Your task to perform on an android device: Open display settings Image 0: 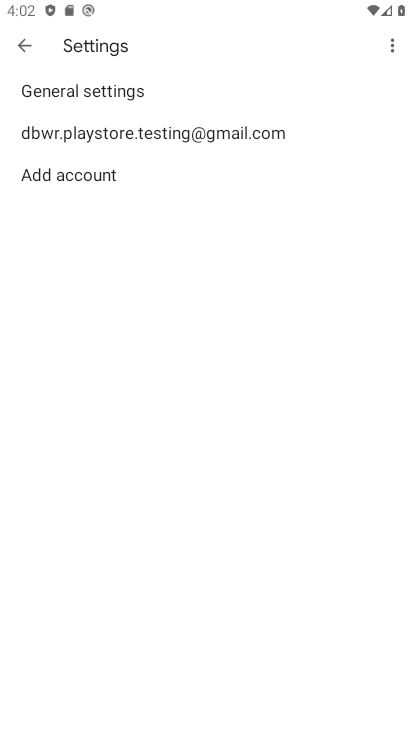
Step 0: click (23, 49)
Your task to perform on an android device: Open display settings Image 1: 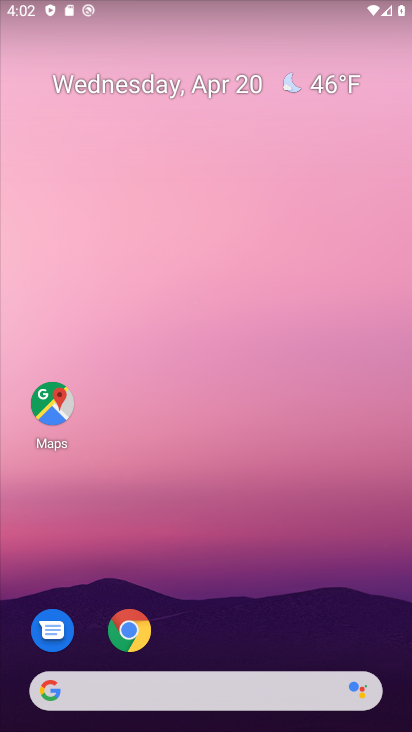
Step 1: drag from (209, 673) to (225, 141)
Your task to perform on an android device: Open display settings Image 2: 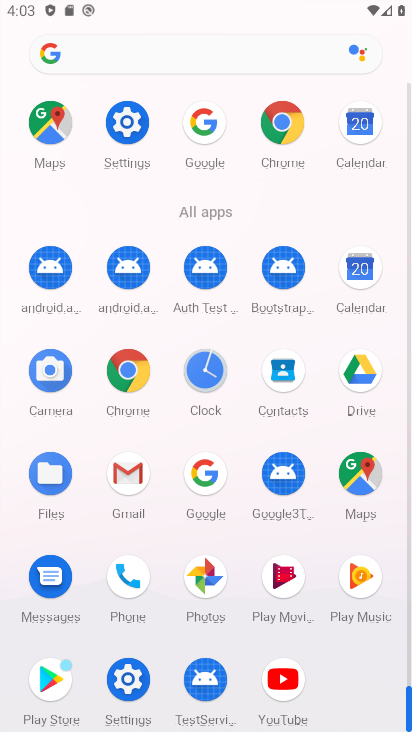
Step 2: click (127, 121)
Your task to perform on an android device: Open display settings Image 3: 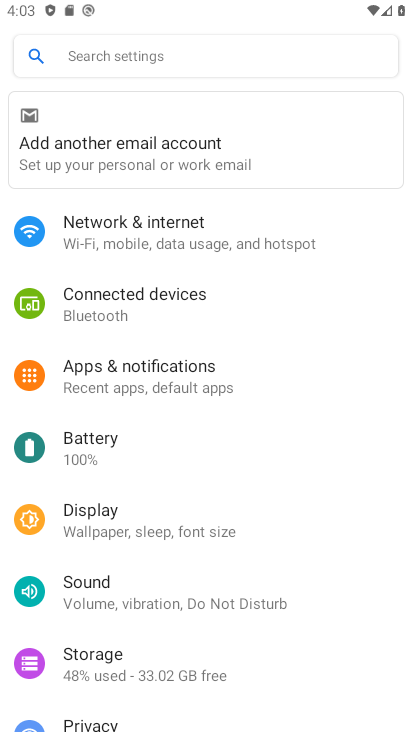
Step 3: click (125, 514)
Your task to perform on an android device: Open display settings Image 4: 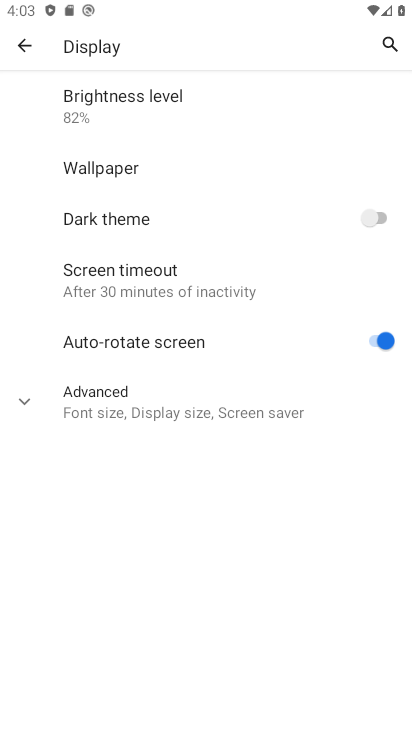
Step 4: click (137, 396)
Your task to perform on an android device: Open display settings Image 5: 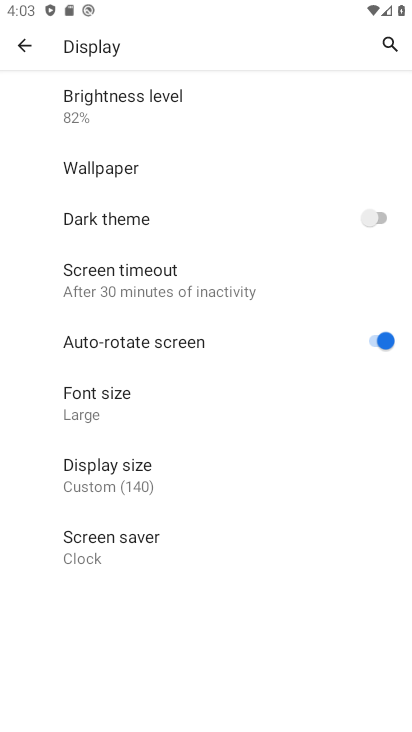
Step 5: task complete